Your task to perform on an android device: change the clock display to digital Image 0: 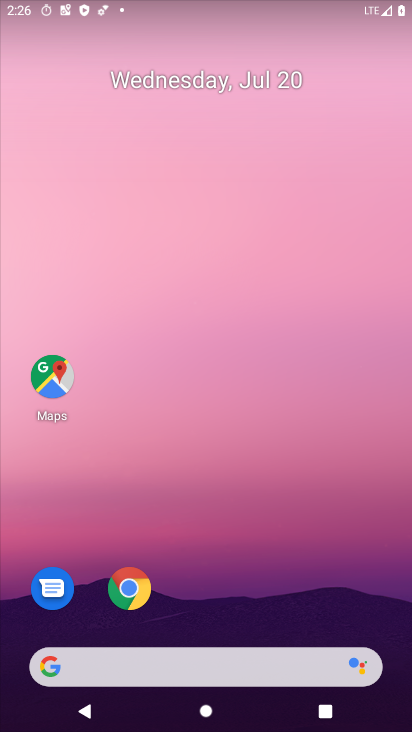
Step 0: drag from (346, 560) to (207, 0)
Your task to perform on an android device: change the clock display to digital Image 1: 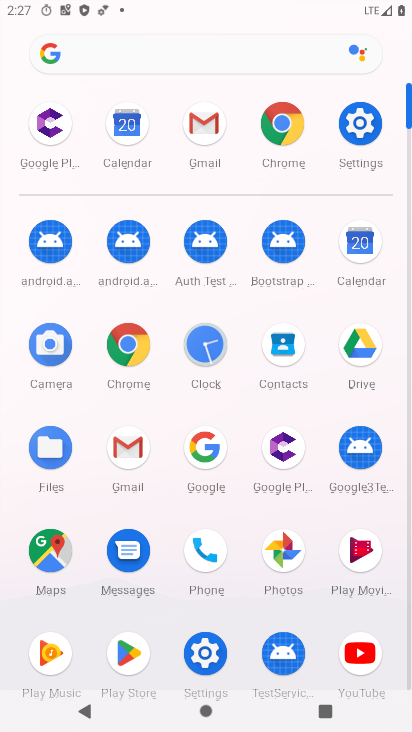
Step 1: click (215, 357)
Your task to perform on an android device: change the clock display to digital Image 2: 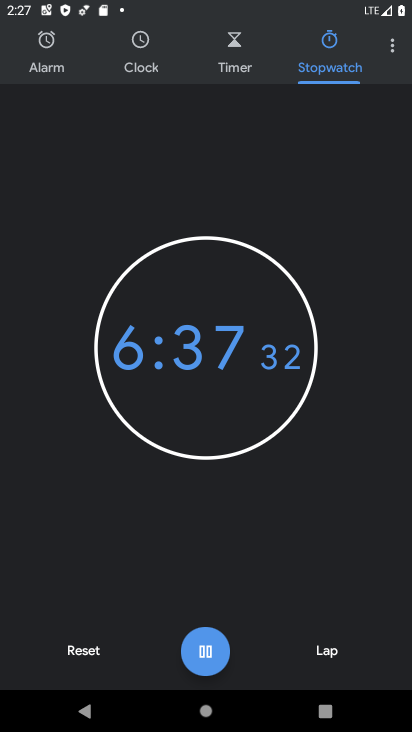
Step 2: click (395, 52)
Your task to perform on an android device: change the clock display to digital Image 3: 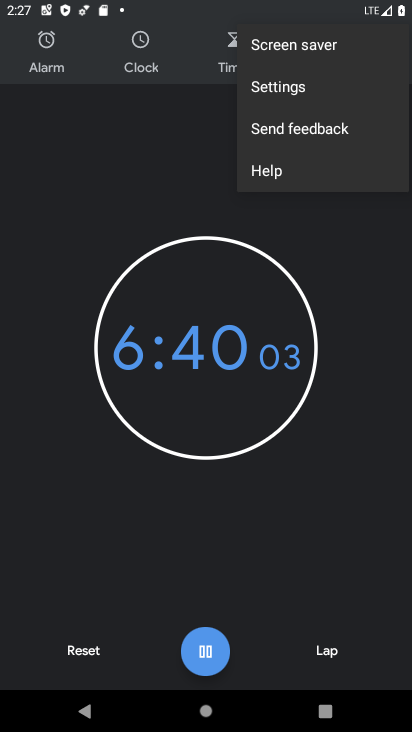
Step 3: click (303, 82)
Your task to perform on an android device: change the clock display to digital Image 4: 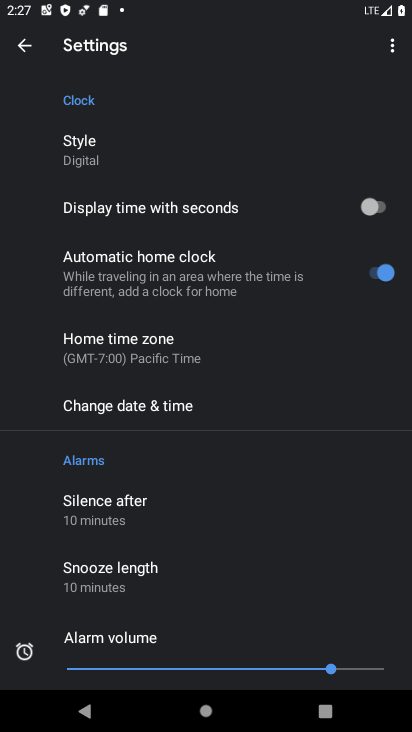
Step 4: task complete